Your task to perform on an android device: turn notification dots on Image 0: 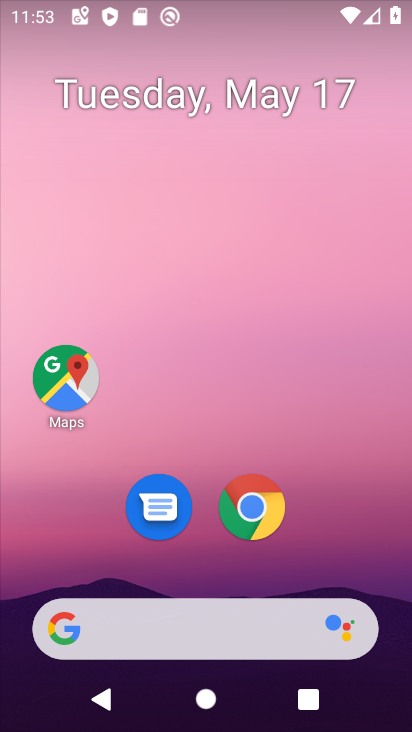
Step 0: drag from (283, 561) to (277, 167)
Your task to perform on an android device: turn notification dots on Image 1: 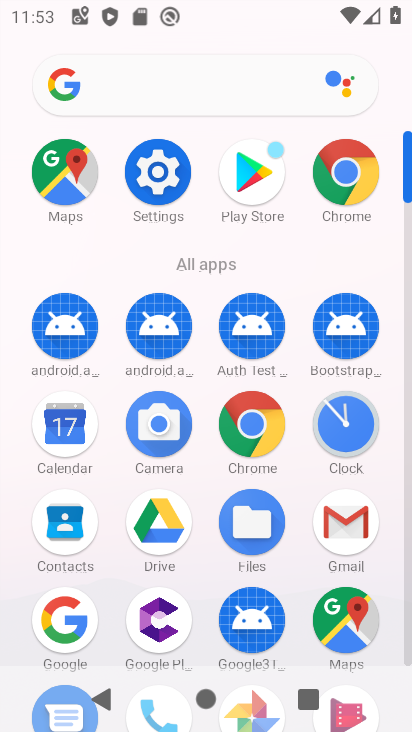
Step 1: click (158, 163)
Your task to perform on an android device: turn notification dots on Image 2: 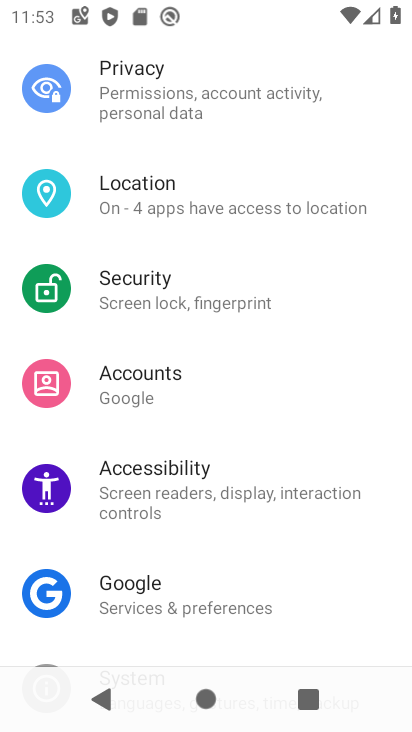
Step 2: drag from (173, 135) to (181, 508)
Your task to perform on an android device: turn notification dots on Image 3: 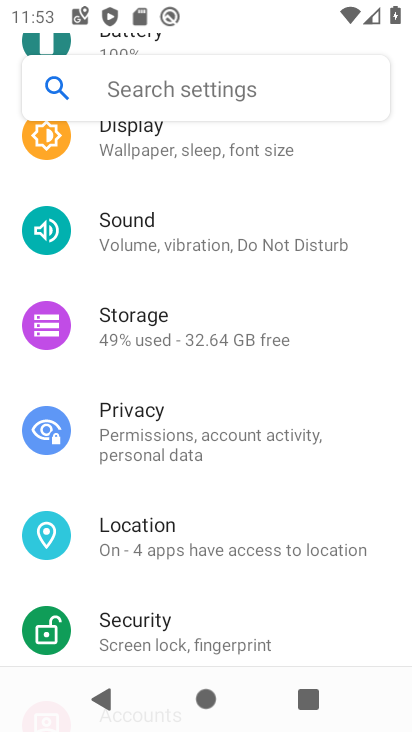
Step 3: click (158, 83)
Your task to perform on an android device: turn notification dots on Image 4: 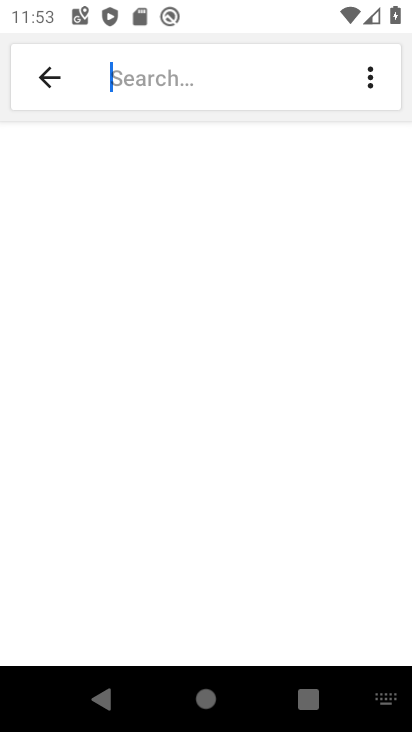
Step 4: click (193, 69)
Your task to perform on an android device: turn notification dots on Image 5: 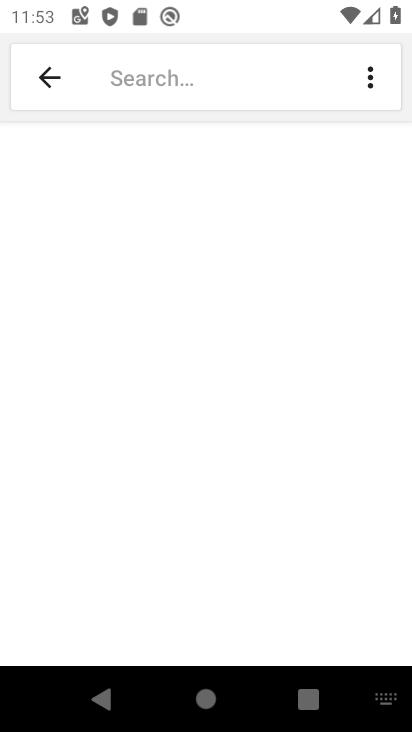
Step 5: type "notification dots"
Your task to perform on an android device: turn notification dots on Image 6: 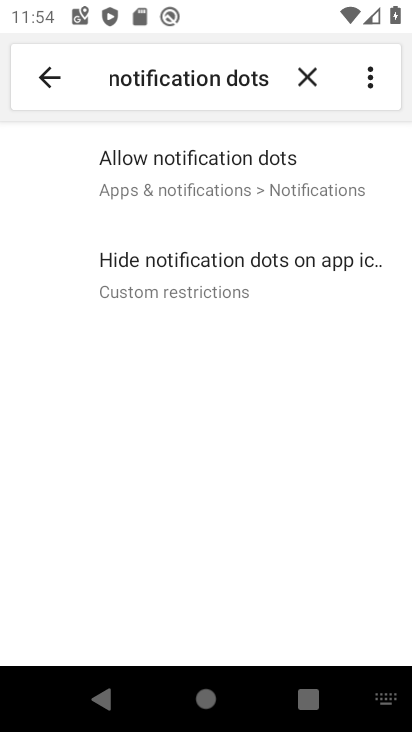
Step 6: click (227, 160)
Your task to perform on an android device: turn notification dots on Image 7: 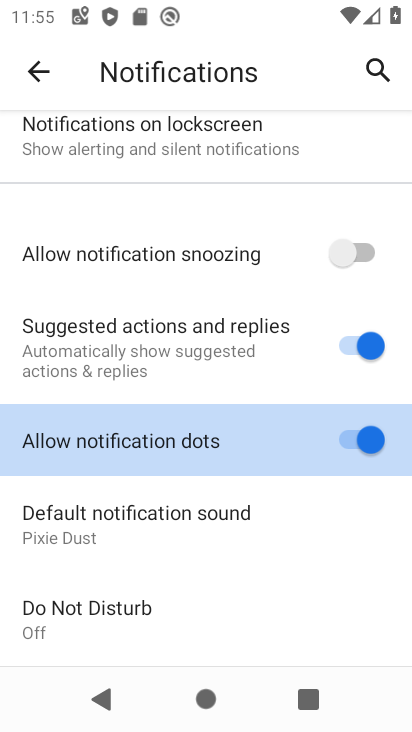
Step 7: task complete